Your task to perform on an android device: Search for Mexican restaurants on Maps Image 0: 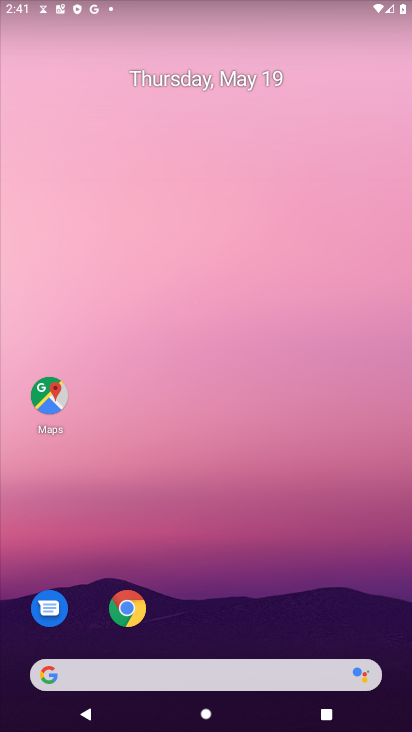
Step 0: click (40, 402)
Your task to perform on an android device: Search for Mexican restaurants on Maps Image 1: 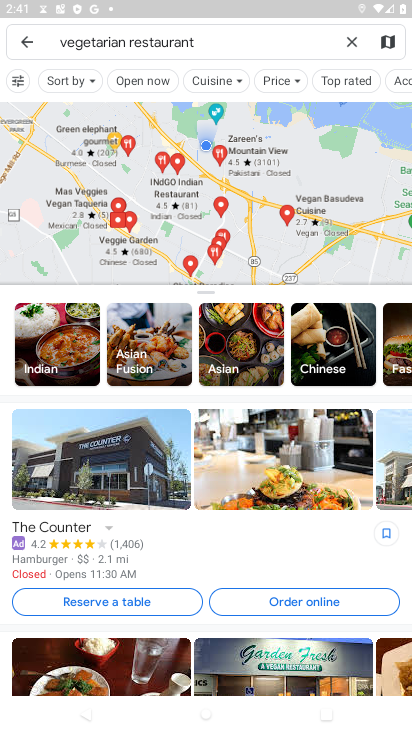
Step 1: click (355, 40)
Your task to perform on an android device: Search for Mexican restaurants on Maps Image 2: 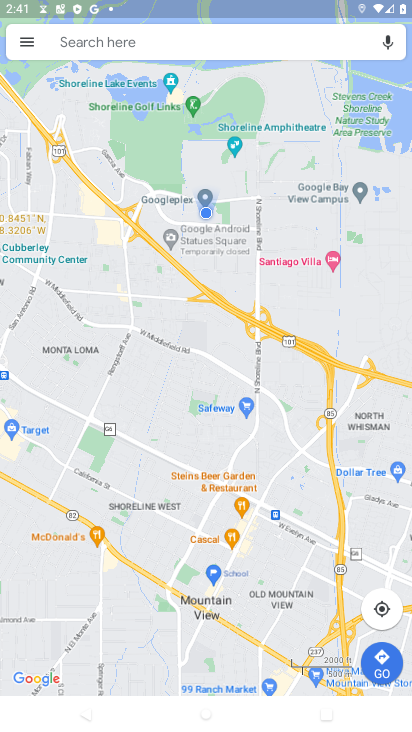
Step 2: click (245, 42)
Your task to perform on an android device: Search for Mexican restaurants on Maps Image 3: 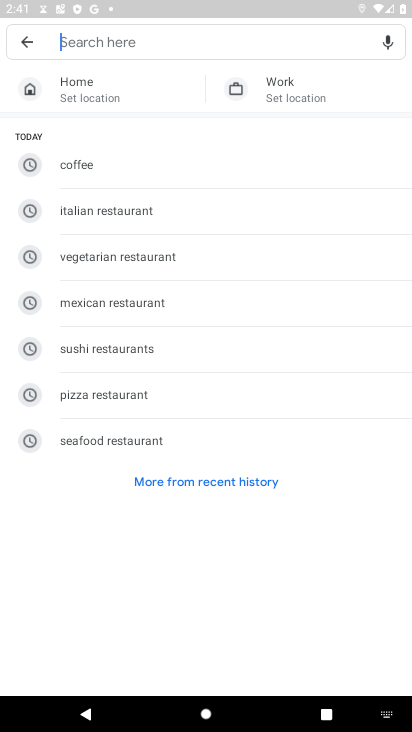
Step 3: click (206, 302)
Your task to perform on an android device: Search for Mexican restaurants on Maps Image 4: 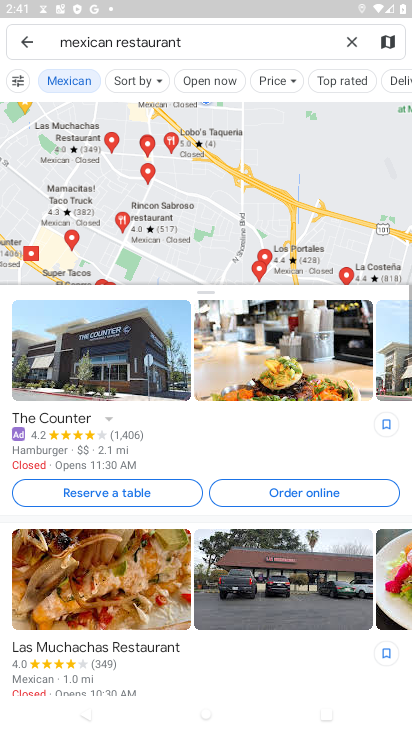
Step 4: task complete